Your task to perform on an android device: Search for vintage wall art on Etsy. Image 0: 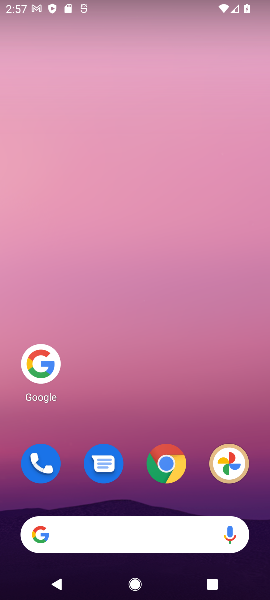
Step 0: click (48, 349)
Your task to perform on an android device: Search for vintage wall art on Etsy. Image 1: 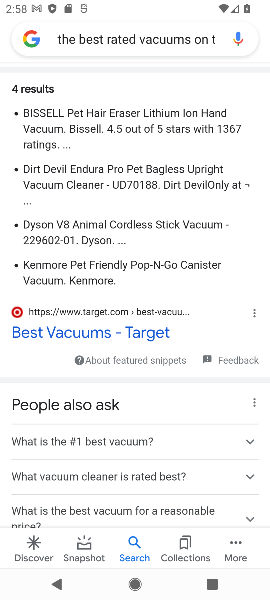
Step 1: click (177, 29)
Your task to perform on an android device: Search for vintage wall art on Etsy. Image 2: 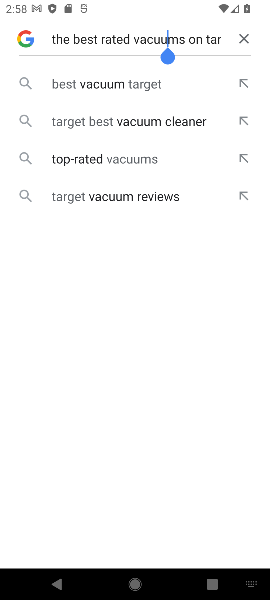
Step 2: click (250, 40)
Your task to perform on an android device: Search for vintage wall art on Etsy. Image 3: 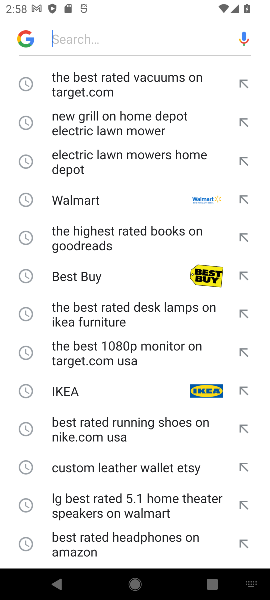
Step 3: click (108, 34)
Your task to perform on an android device: Search for vintage wall art on Etsy. Image 4: 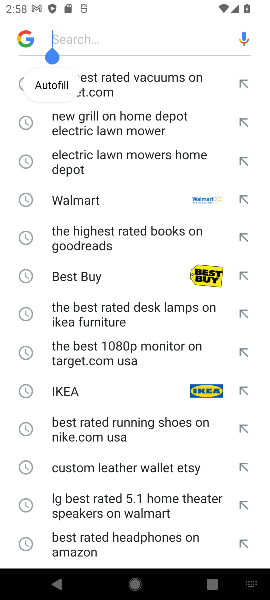
Step 4: type " vintage wall art on Etsy "
Your task to perform on an android device: Search for vintage wall art on Etsy. Image 5: 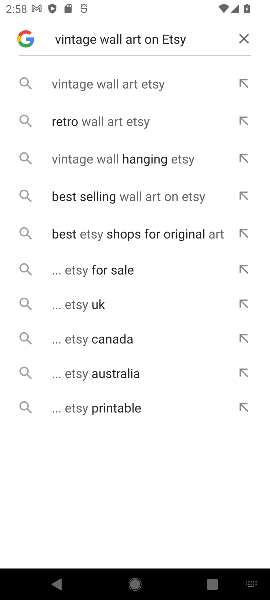
Step 5: click (135, 86)
Your task to perform on an android device: Search for vintage wall art on Etsy. Image 6: 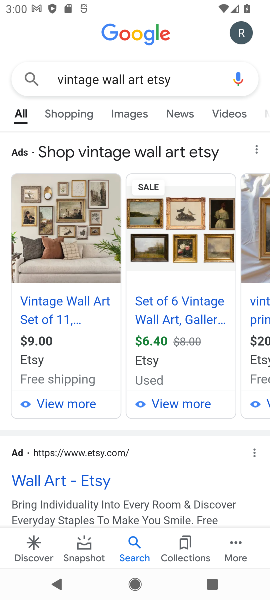
Step 6: task complete